Your task to perform on an android device: remove spam from my inbox in the gmail app Image 0: 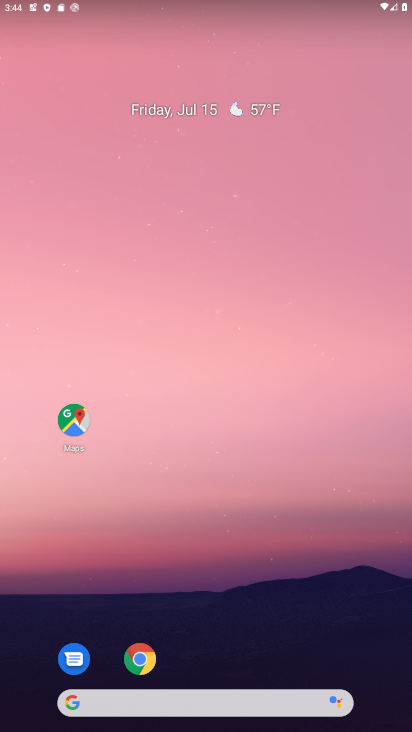
Step 0: drag from (162, 667) to (161, 416)
Your task to perform on an android device: remove spam from my inbox in the gmail app Image 1: 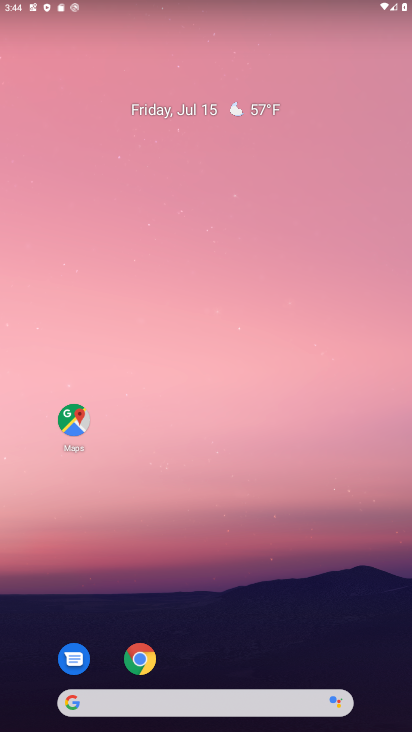
Step 1: drag from (208, 681) to (201, 231)
Your task to perform on an android device: remove spam from my inbox in the gmail app Image 2: 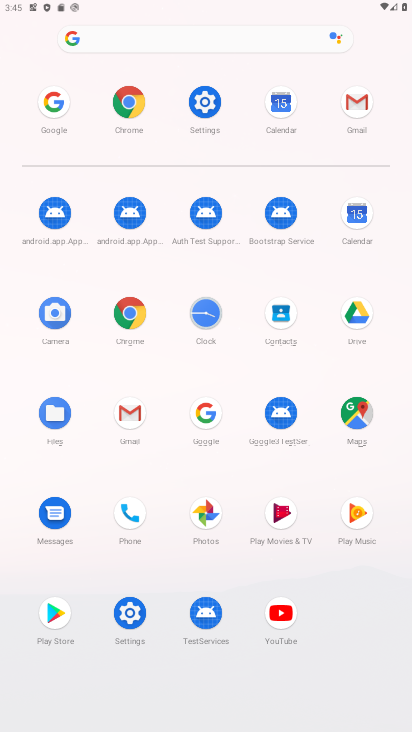
Step 2: click (124, 417)
Your task to perform on an android device: remove spam from my inbox in the gmail app Image 3: 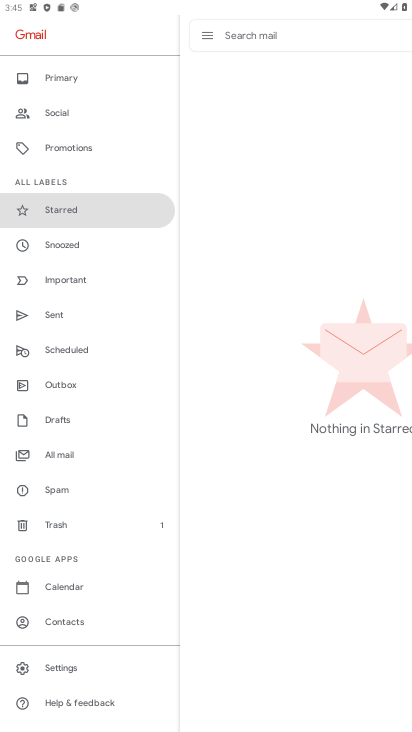
Step 3: click (54, 488)
Your task to perform on an android device: remove spam from my inbox in the gmail app Image 4: 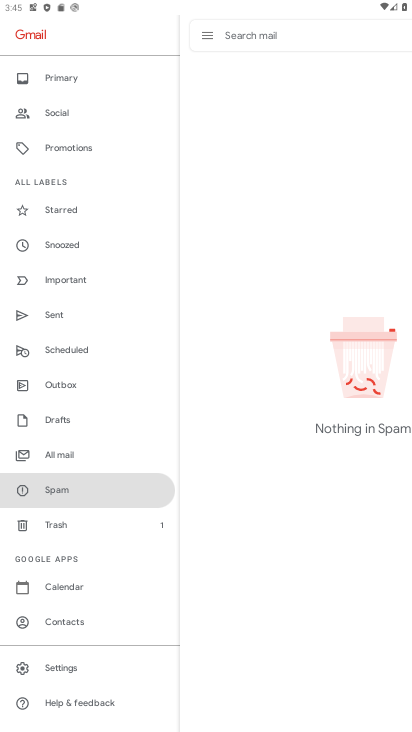
Step 4: task complete